Your task to perform on an android device: manage bookmarks in the chrome app Image 0: 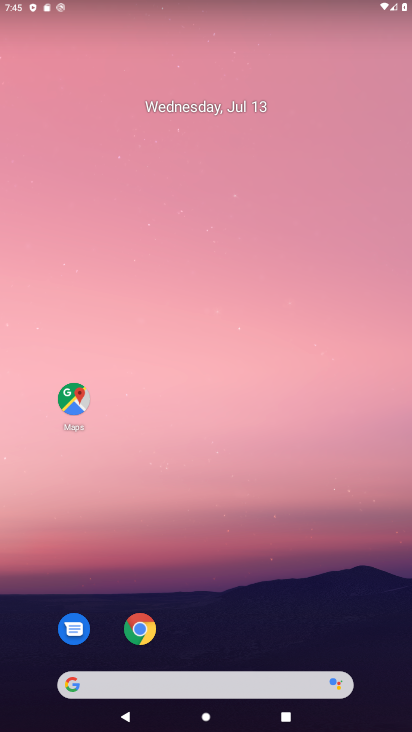
Step 0: click (138, 636)
Your task to perform on an android device: manage bookmarks in the chrome app Image 1: 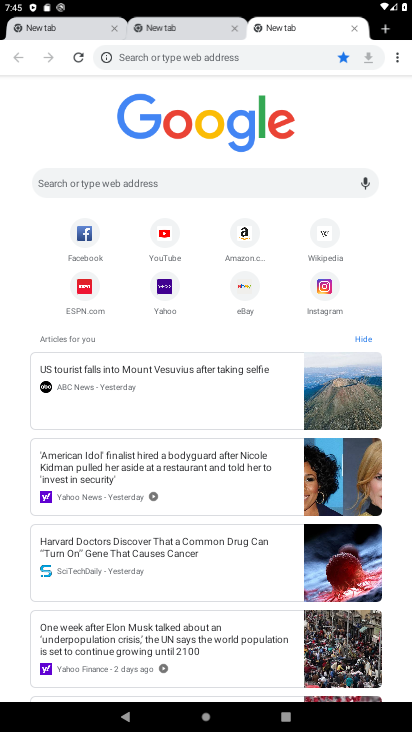
Step 1: click (401, 57)
Your task to perform on an android device: manage bookmarks in the chrome app Image 2: 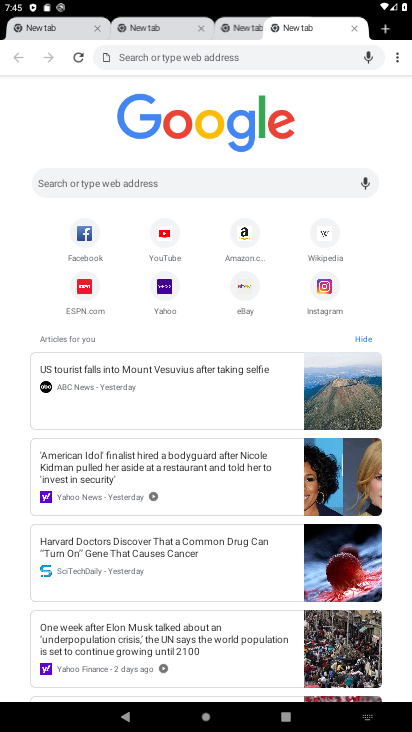
Step 2: click (391, 59)
Your task to perform on an android device: manage bookmarks in the chrome app Image 3: 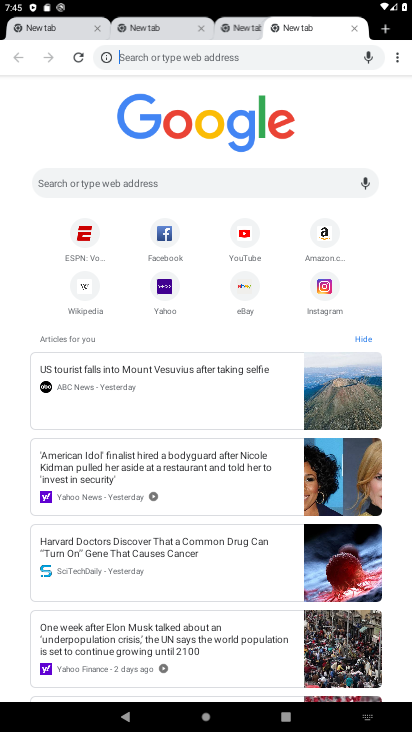
Step 3: task complete